Your task to perform on an android device: Open the phone app and click the voicemail tab. Image 0: 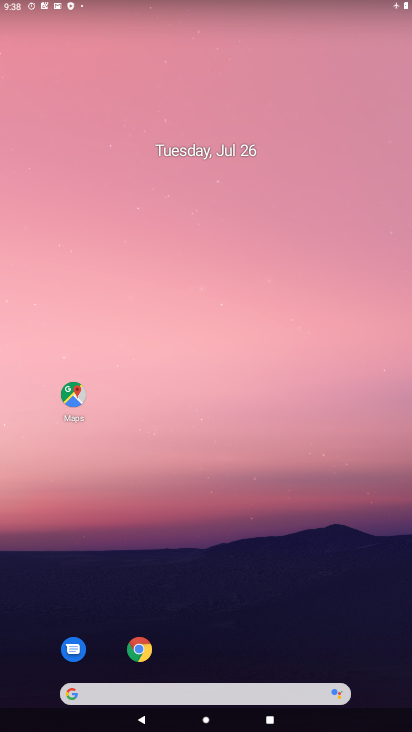
Step 0: drag from (191, 644) to (252, 105)
Your task to perform on an android device: Open the phone app and click the voicemail tab. Image 1: 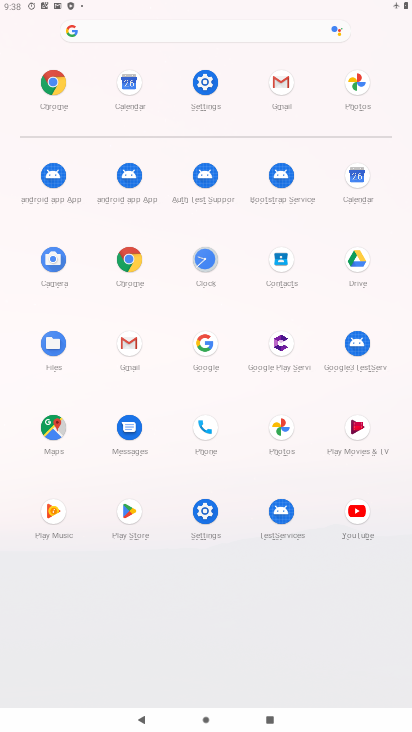
Step 1: click (199, 429)
Your task to perform on an android device: Open the phone app and click the voicemail tab. Image 2: 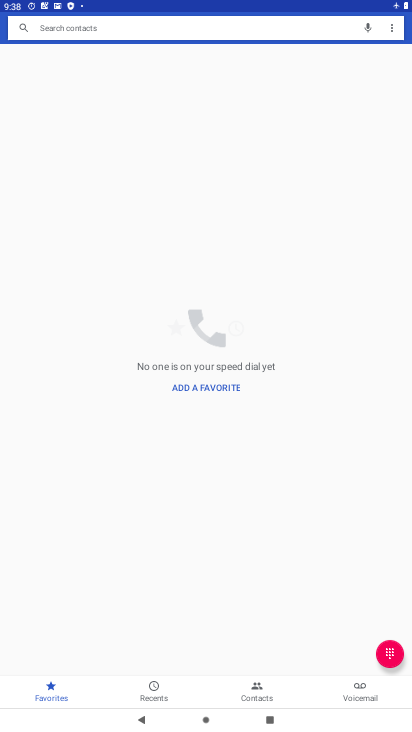
Step 2: click (359, 688)
Your task to perform on an android device: Open the phone app and click the voicemail tab. Image 3: 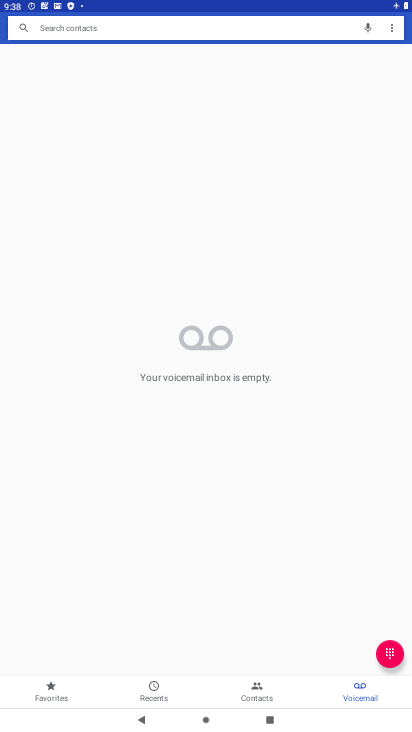
Step 3: task complete